Your task to perform on an android device: Open Google Maps Image 0: 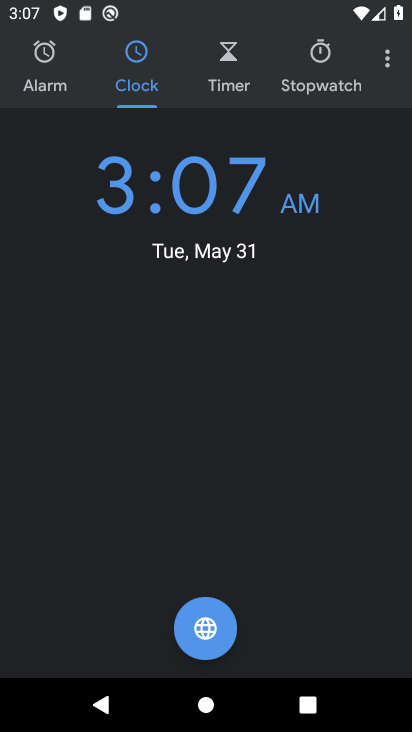
Step 0: press home button
Your task to perform on an android device: Open Google Maps Image 1: 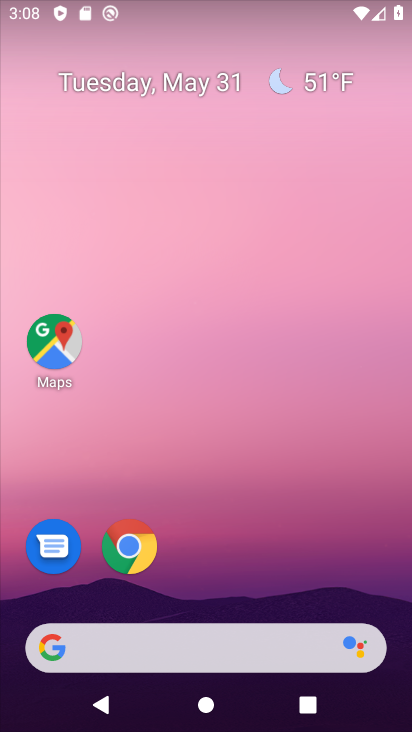
Step 1: click (58, 355)
Your task to perform on an android device: Open Google Maps Image 2: 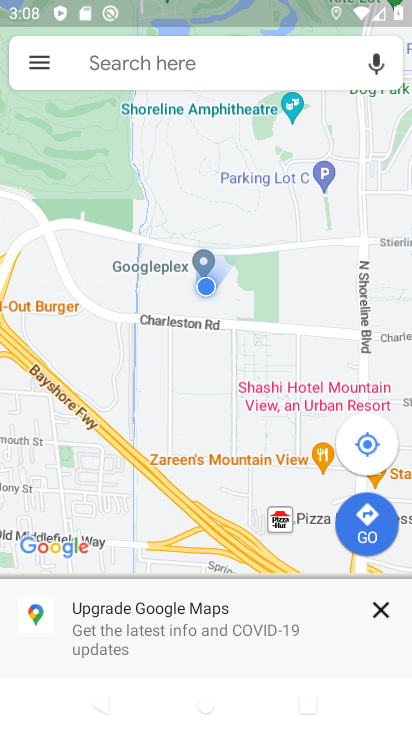
Step 2: click (384, 608)
Your task to perform on an android device: Open Google Maps Image 3: 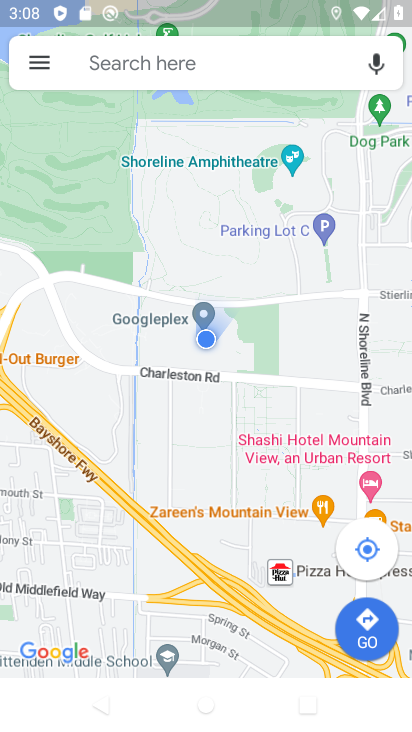
Step 3: click (159, 52)
Your task to perform on an android device: Open Google Maps Image 4: 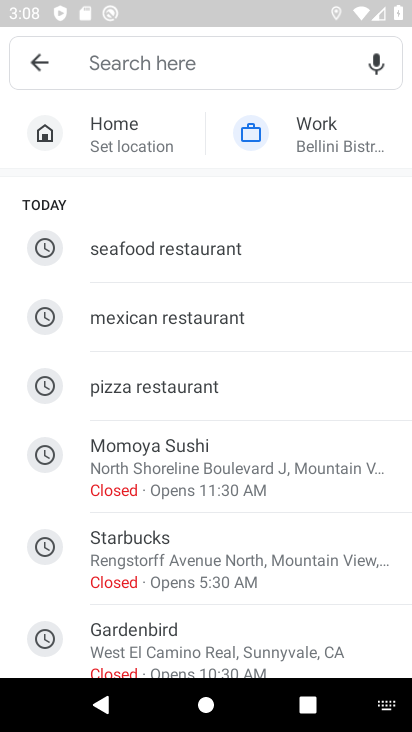
Step 4: task complete